Your task to perform on an android device: create a new album in the google photos Image 0: 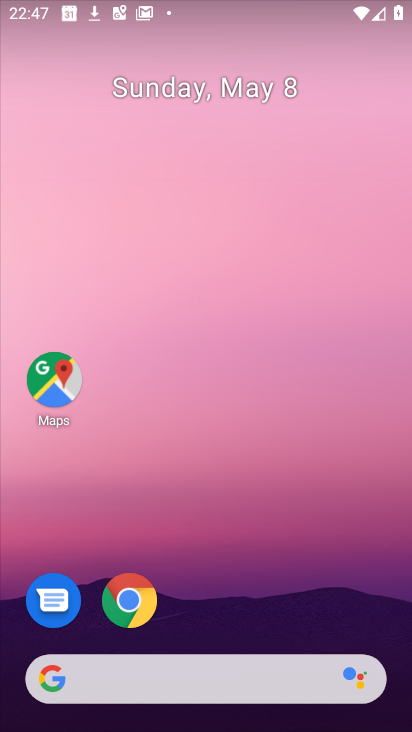
Step 0: drag from (311, 704) to (261, 169)
Your task to perform on an android device: create a new album in the google photos Image 1: 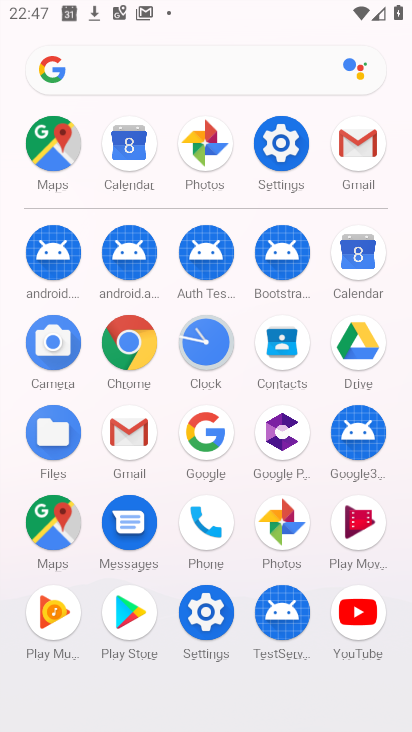
Step 1: click (206, 143)
Your task to perform on an android device: create a new album in the google photos Image 2: 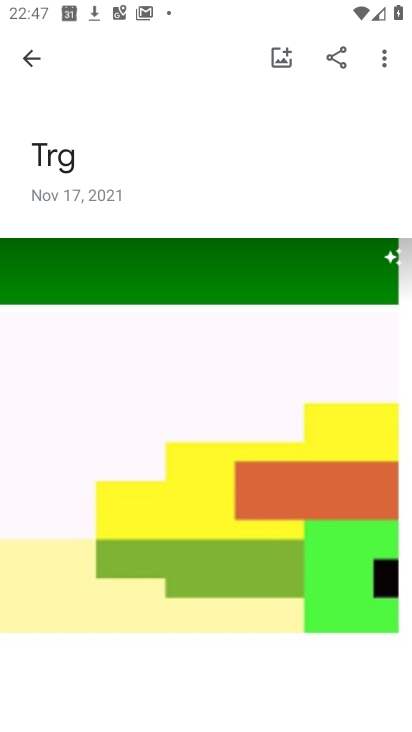
Step 2: click (29, 71)
Your task to perform on an android device: create a new album in the google photos Image 3: 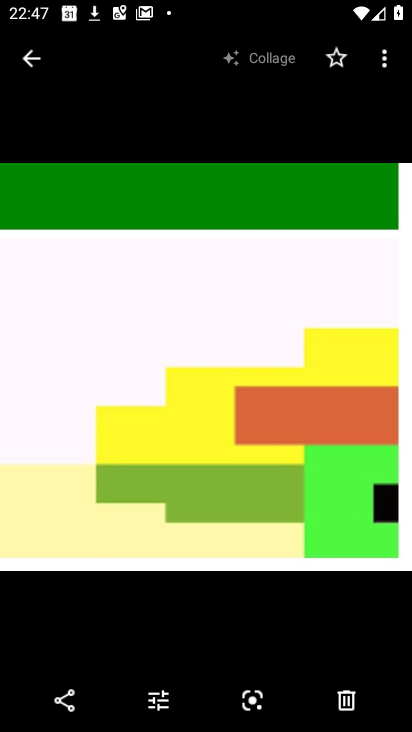
Step 3: click (366, 89)
Your task to perform on an android device: create a new album in the google photos Image 4: 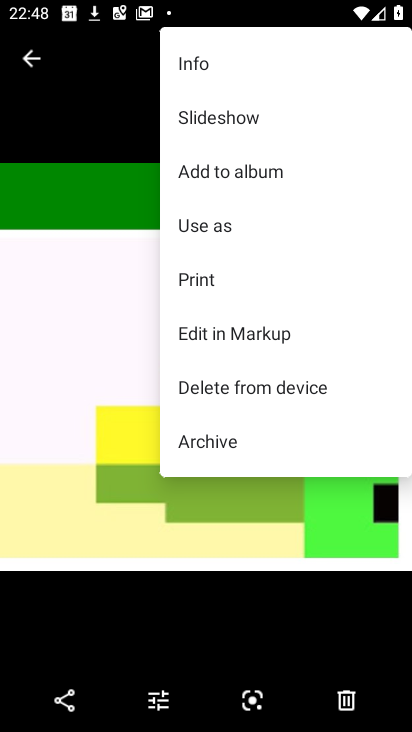
Step 4: click (212, 176)
Your task to perform on an android device: create a new album in the google photos Image 5: 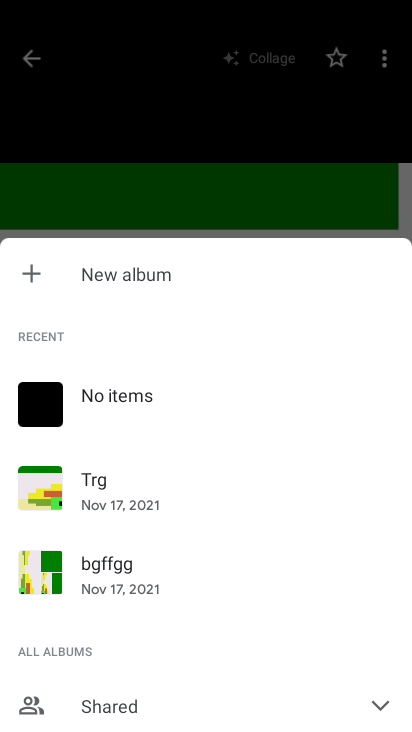
Step 5: click (123, 273)
Your task to perform on an android device: create a new album in the google photos Image 6: 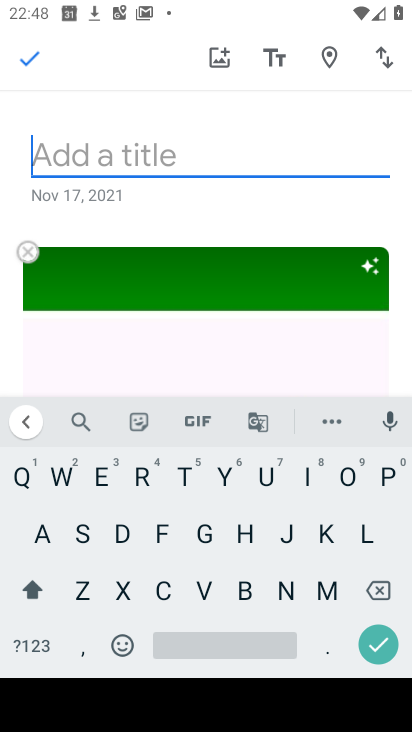
Step 6: click (184, 471)
Your task to perform on an android device: create a new album in the google photos Image 7: 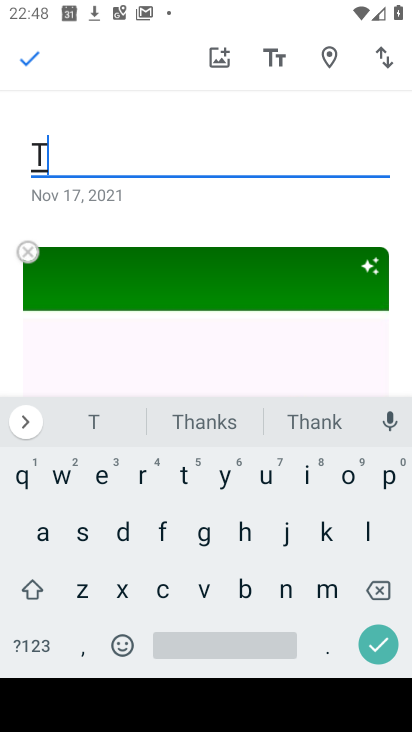
Step 7: click (188, 510)
Your task to perform on an android device: create a new album in the google photos Image 8: 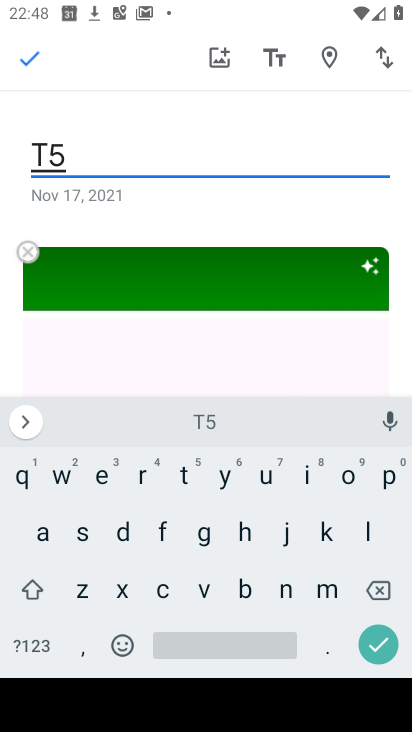
Step 8: click (249, 538)
Your task to perform on an android device: create a new album in the google photos Image 9: 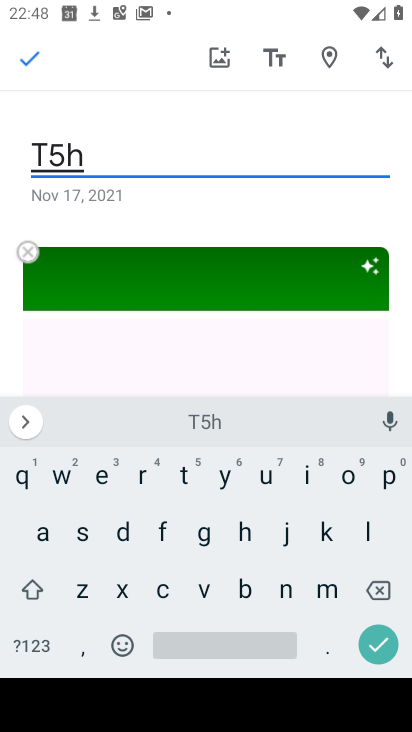
Step 9: click (39, 50)
Your task to perform on an android device: create a new album in the google photos Image 10: 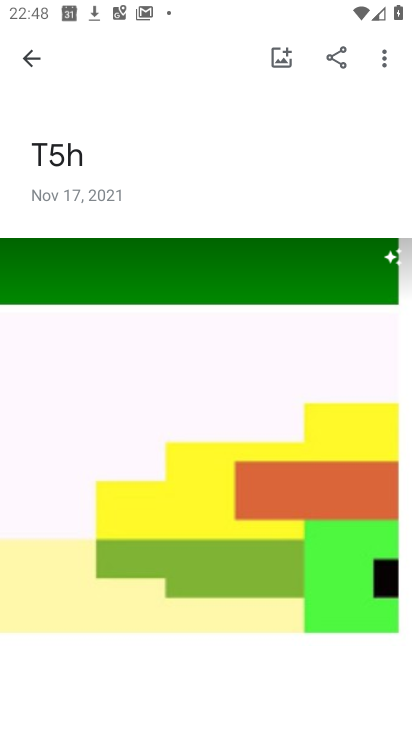
Step 10: task complete